Your task to perform on an android device: allow notifications from all sites in the chrome app Image 0: 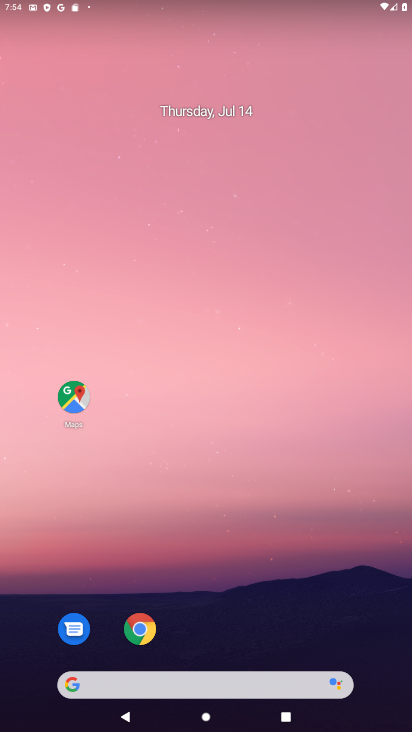
Step 0: click (135, 621)
Your task to perform on an android device: allow notifications from all sites in the chrome app Image 1: 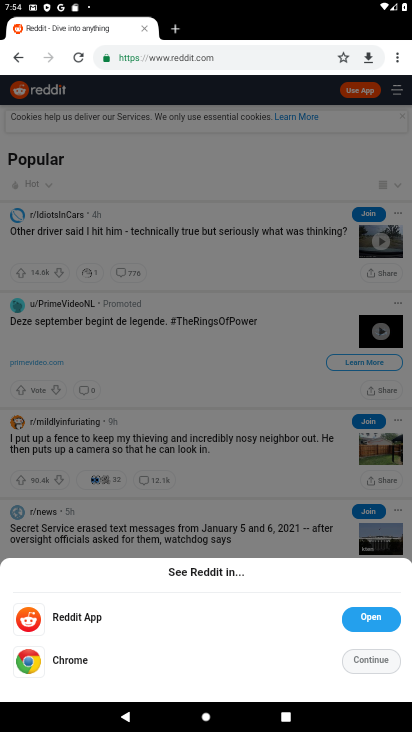
Step 1: click (390, 55)
Your task to perform on an android device: allow notifications from all sites in the chrome app Image 2: 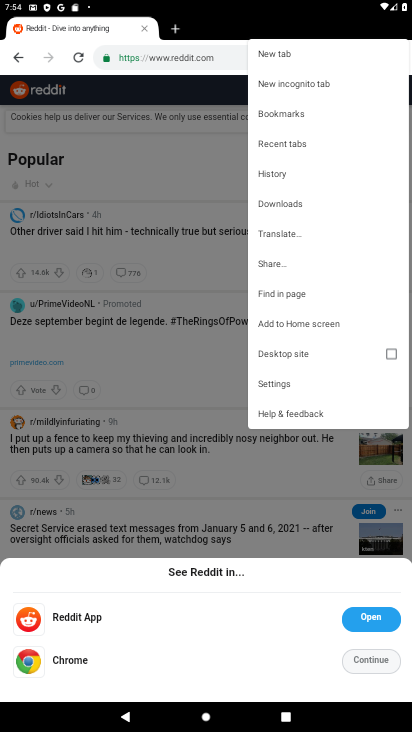
Step 2: click (295, 383)
Your task to perform on an android device: allow notifications from all sites in the chrome app Image 3: 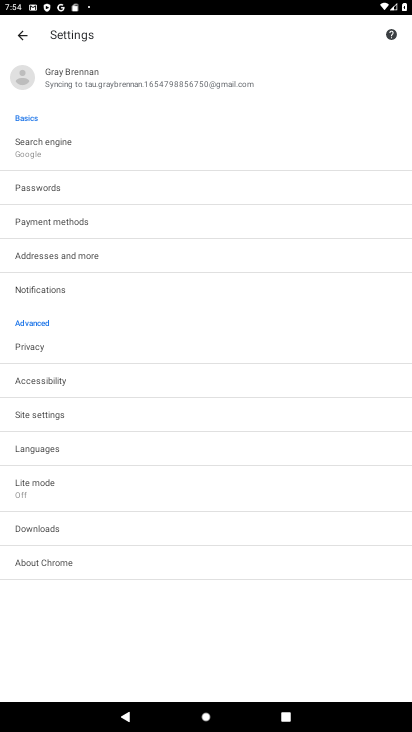
Step 3: click (33, 288)
Your task to perform on an android device: allow notifications from all sites in the chrome app Image 4: 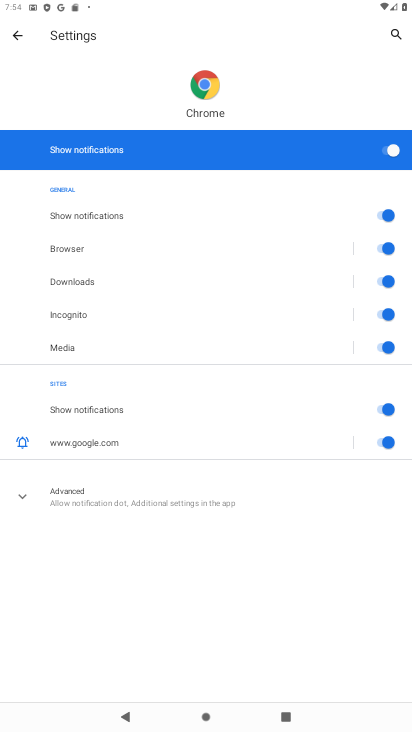
Step 4: task complete